Your task to perform on an android device: Open Google Chrome Image 0: 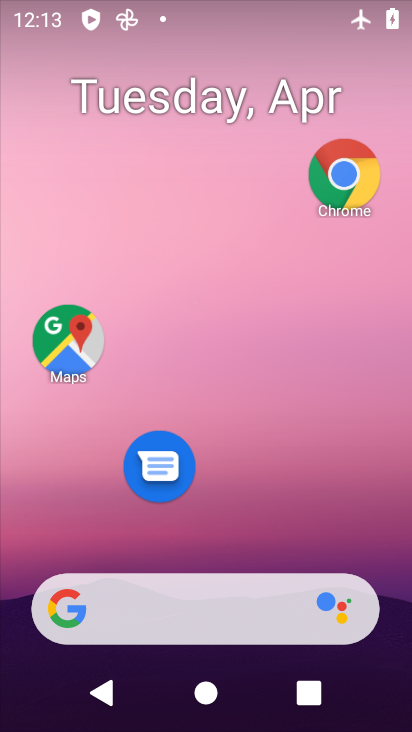
Step 0: drag from (301, 568) to (226, 114)
Your task to perform on an android device: Open Google Chrome Image 1: 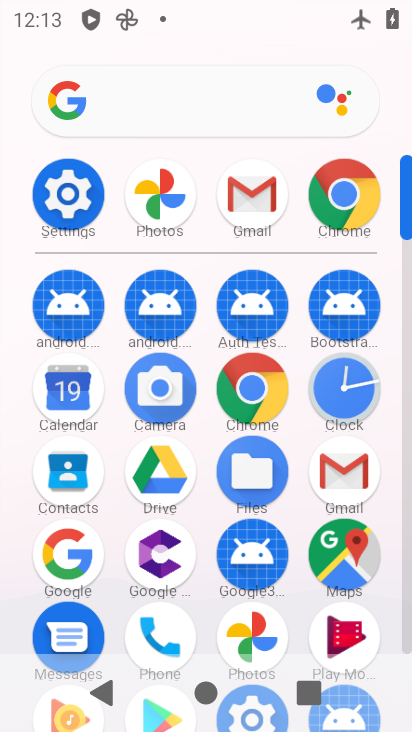
Step 1: click (350, 218)
Your task to perform on an android device: Open Google Chrome Image 2: 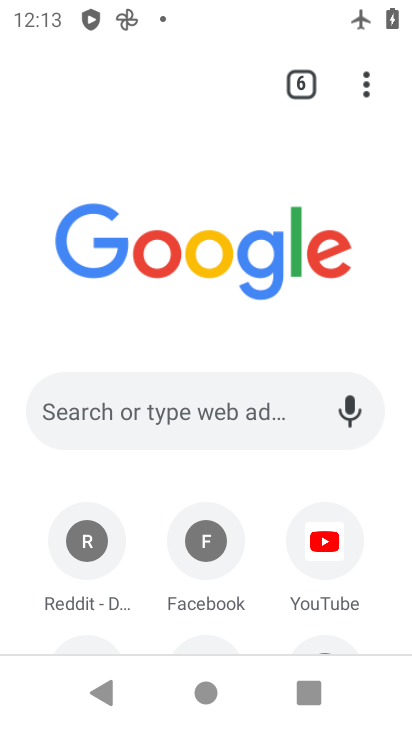
Step 2: task complete